Your task to perform on an android device: Open the phone app and click the voicemail tab. Image 0: 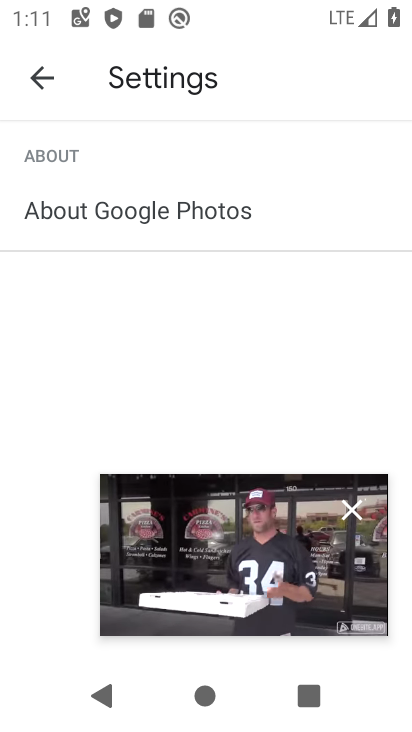
Step 0: click (352, 512)
Your task to perform on an android device: Open the phone app and click the voicemail tab. Image 1: 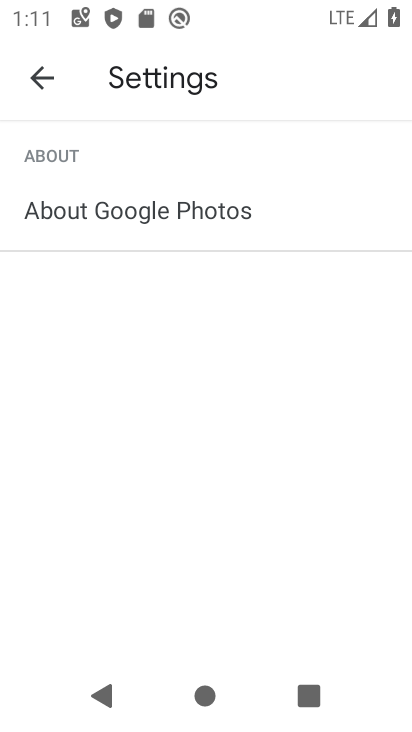
Step 1: press home button
Your task to perform on an android device: Open the phone app and click the voicemail tab. Image 2: 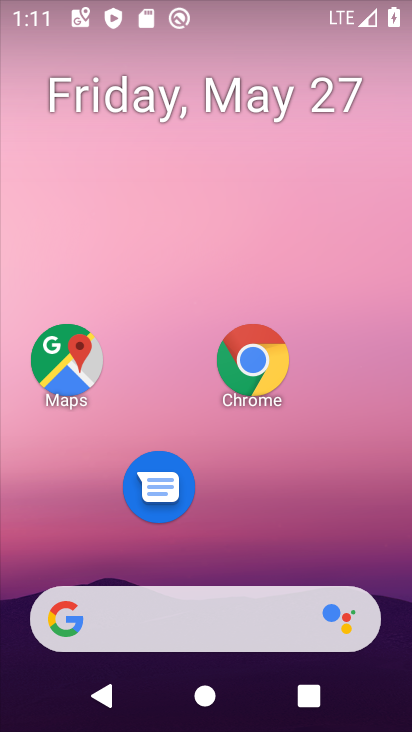
Step 2: drag from (285, 534) to (321, 65)
Your task to perform on an android device: Open the phone app and click the voicemail tab. Image 3: 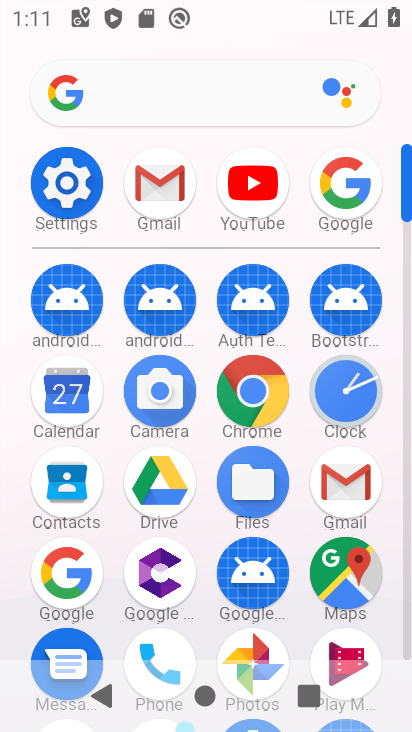
Step 3: click (153, 650)
Your task to perform on an android device: Open the phone app and click the voicemail tab. Image 4: 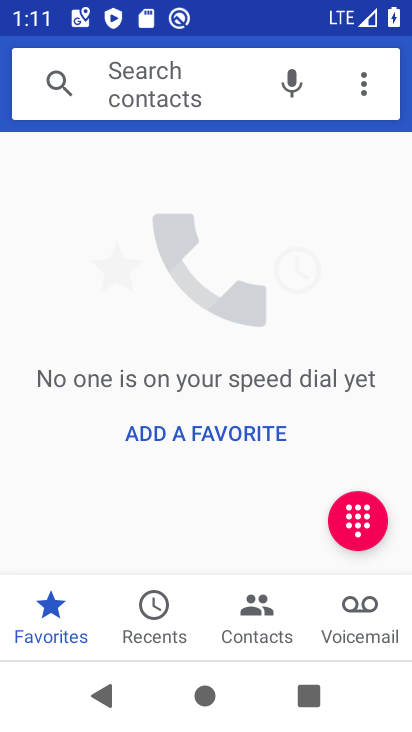
Step 4: click (365, 621)
Your task to perform on an android device: Open the phone app and click the voicemail tab. Image 5: 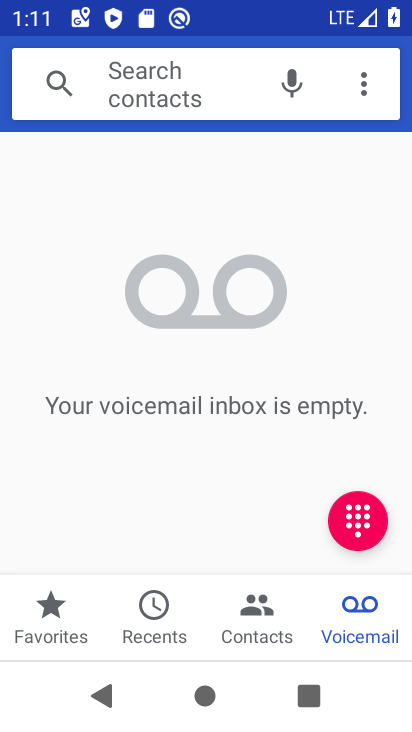
Step 5: task complete